Your task to perform on an android device: Go to CNN.com Image 0: 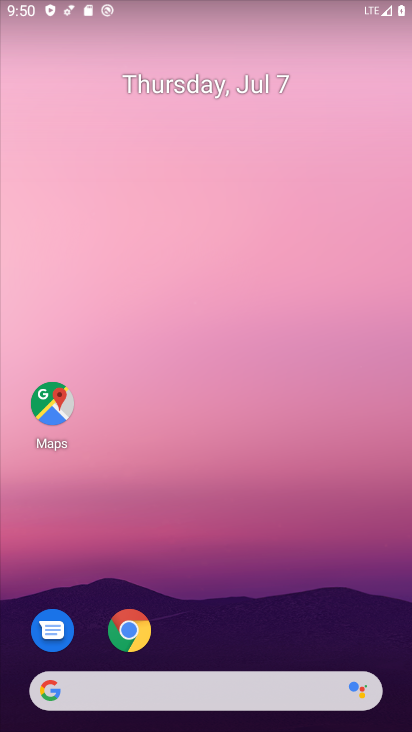
Step 0: click (237, 108)
Your task to perform on an android device: Go to CNN.com Image 1: 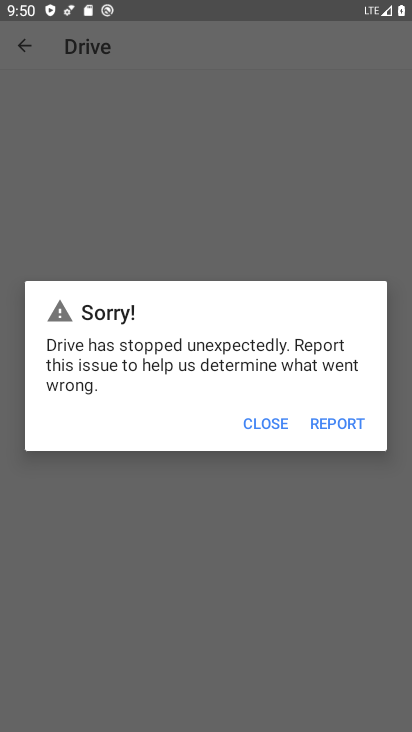
Step 1: press home button
Your task to perform on an android device: Go to CNN.com Image 2: 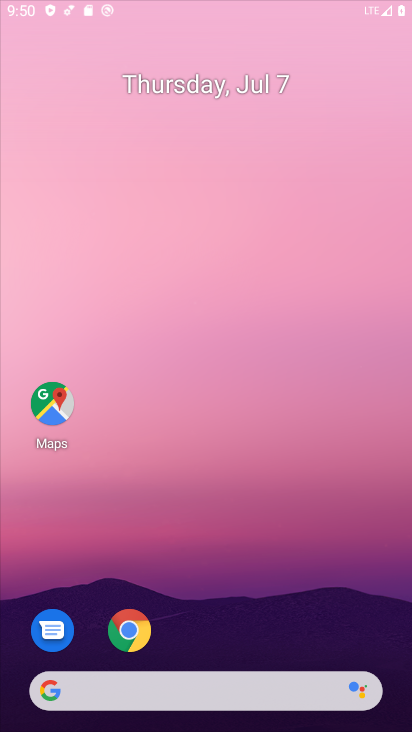
Step 2: drag from (267, 559) to (271, 147)
Your task to perform on an android device: Go to CNN.com Image 3: 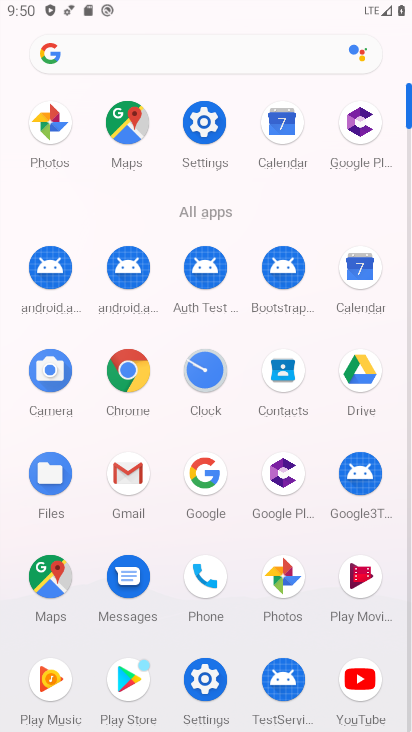
Step 3: click (132, 368)
Your task to perform on an android device: Go to CNN.com Image 4: 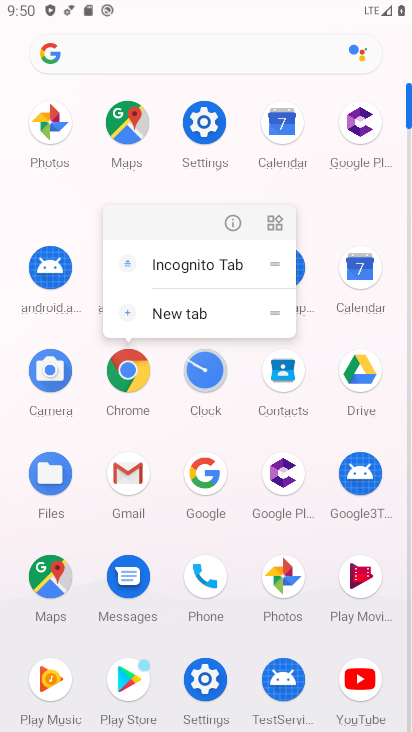
Step 4: click (222, 230)
Your task to perform on an android device: Go to CNN.com Image 5: 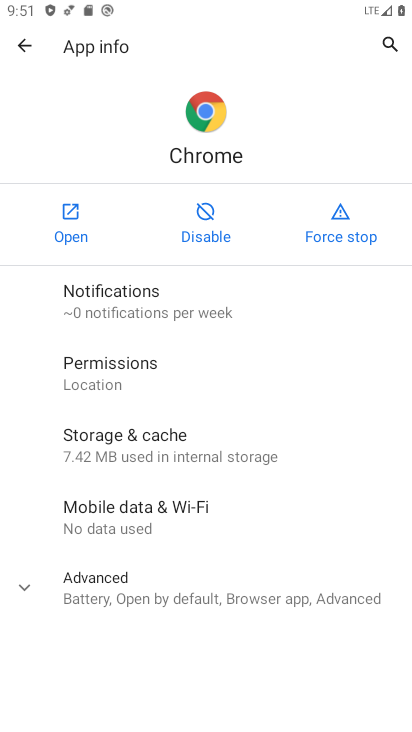
Step 5: click (78, 223)
Your task to perform on an android device: Go to CNN.com Image 6: 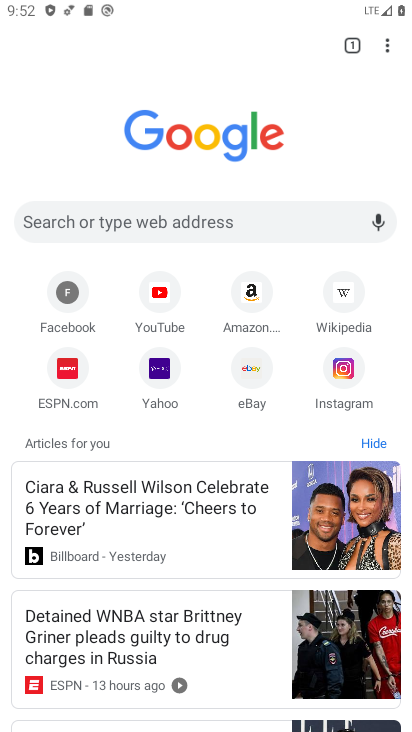
Step 6: click (97, 219)
Your task to perform on an android device: Go to CNN.com Image 7: 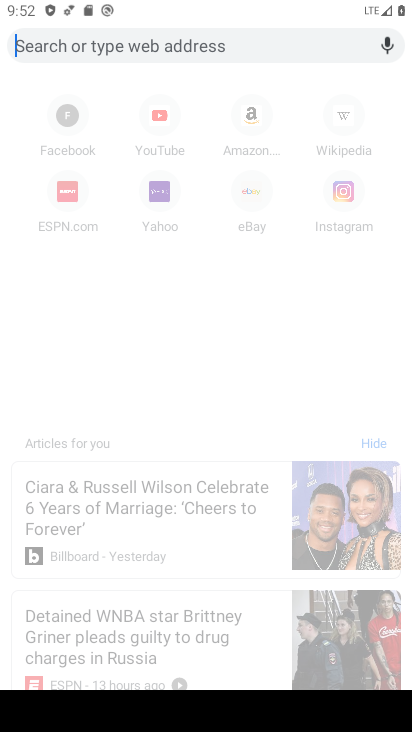
Step 7: type ""
Your task to perform on an android device: Go to CNN.com Image 8: 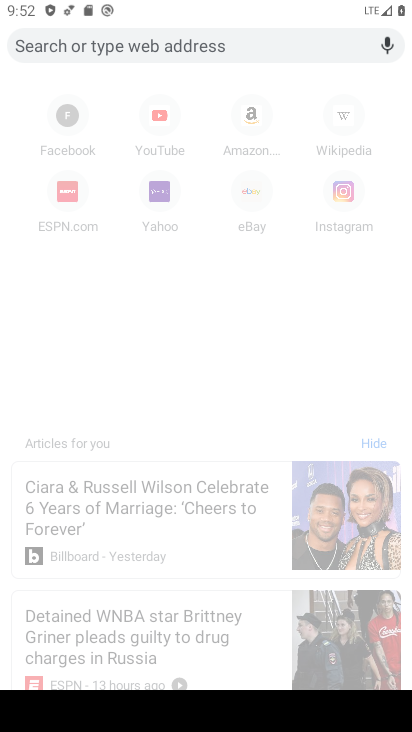
Step 8: type "CNN.com"
Your task to perform on an android device: Go to CNN.com Image 9: 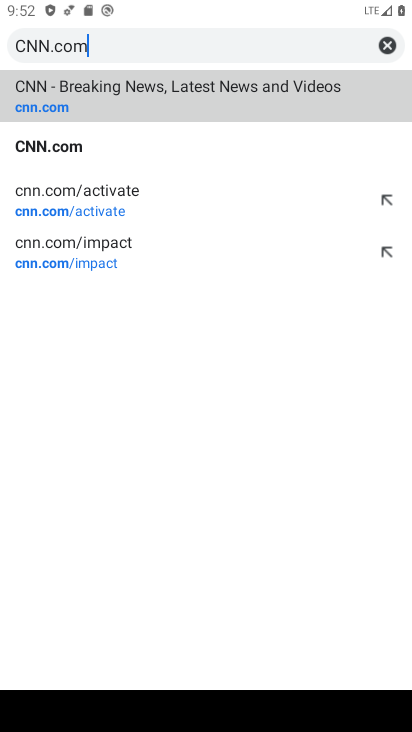
Step 9: type ""
Your task to perform on an android device: Go to CNN.com Image 10: 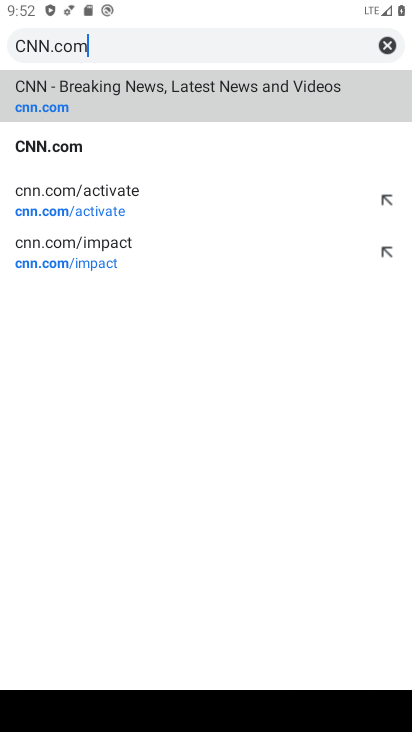
Step 10: click (60, 104)
Your task to perform on an android device: Go to CNN.com Image 11: 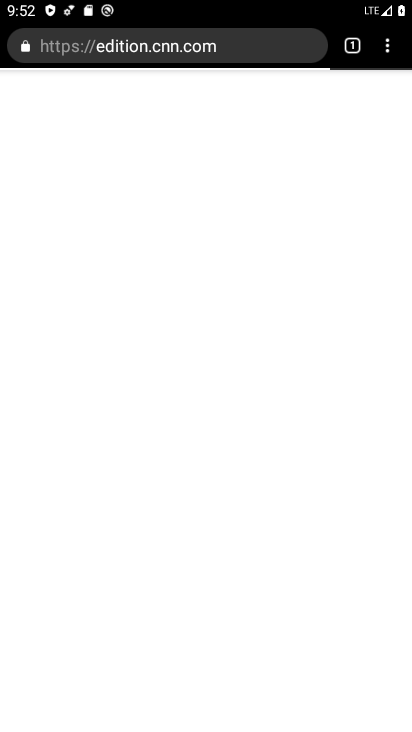
Step 11: task complete